Your task to perform on an android device: Open the downloads Image 0: 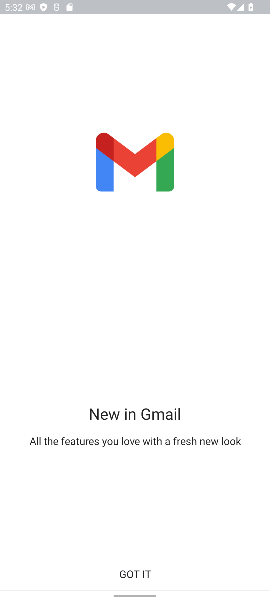
Step 0: press home button
Your task to perform on an android device: Open the downloads Image 1: 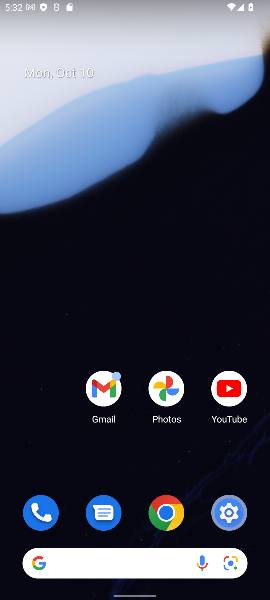
Step 1: click (162, 520)
Your task to perform on an android device: Open the downloads Image 2: 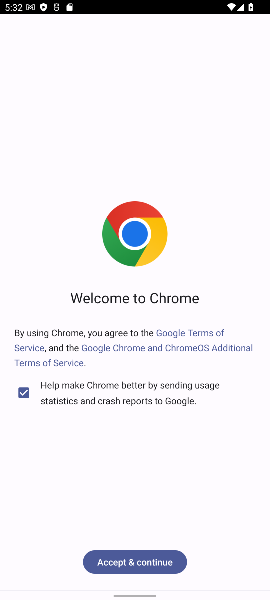
Step 2: click (138, 554)
Your task to perform on an android device: Open the downloads Image 3: 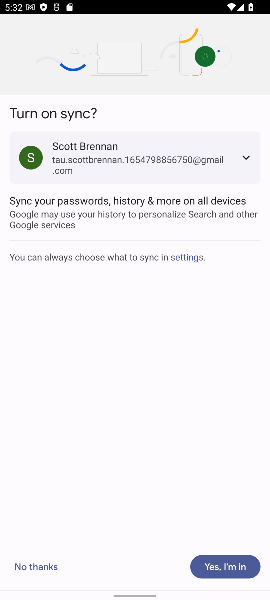
Step 3: click (198, 568)
Your task to perform on an android device: Open the downloads Image 4: 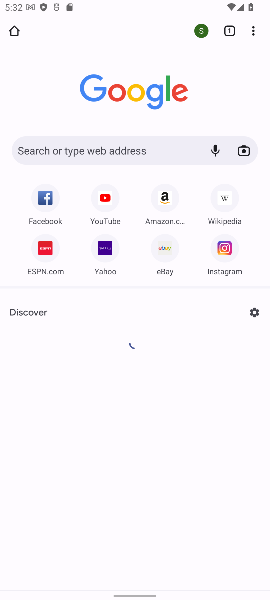
Step 4: click (247, 31)
Your task to perform on an android device: Open the downloads Image 5: 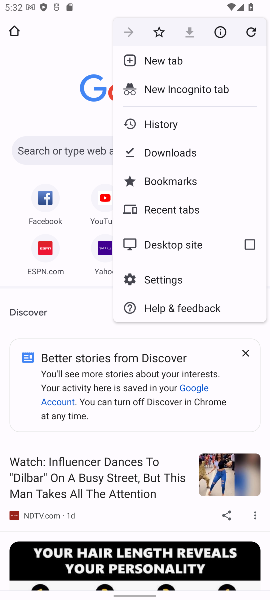
Step 5: click (210, 157)
Your task to perform on an android device: Open the downloads Image 6: 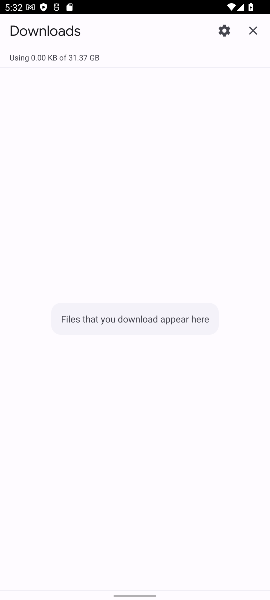
Step 6: task complete